Your task to perform on an android device: find photos in the google photos app Image 0: 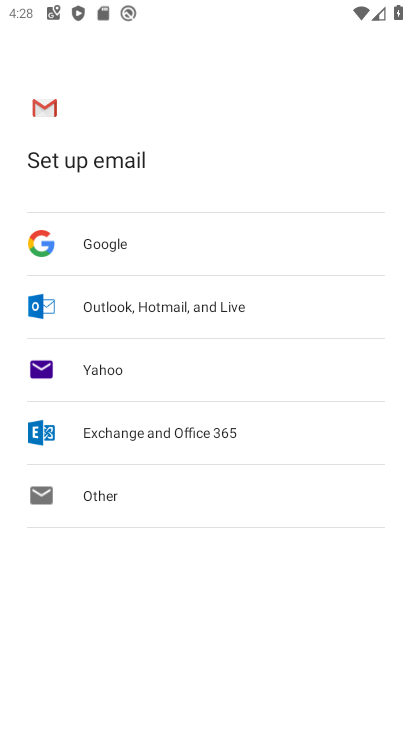
Step 0: press home button
Your task to perform on an android device: find photos in the google photos app Image 1: 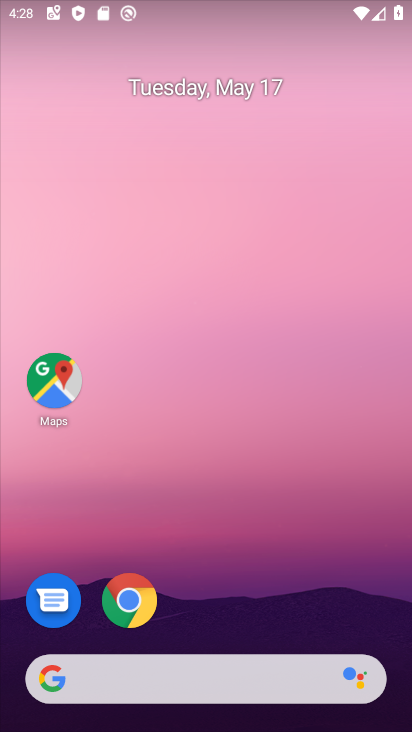
Step 1: drag from (213, 601) to (262, 16)
Your task to perform on an android device: find photos in the google photos app Image 2: 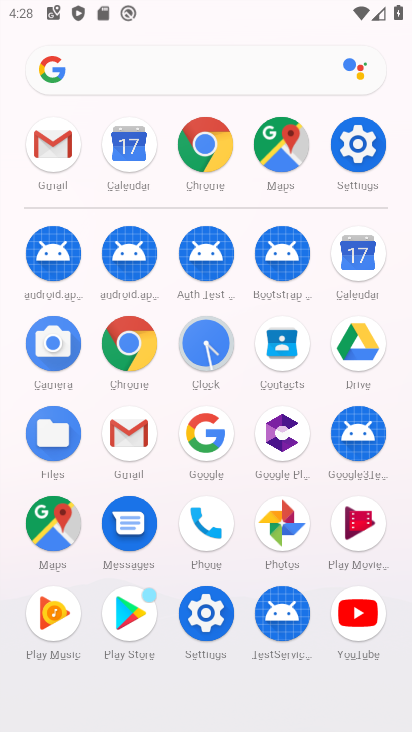
Step 2: click (281, 529)
Your task to perform on an android device: find photos in the google photos app Image 3: 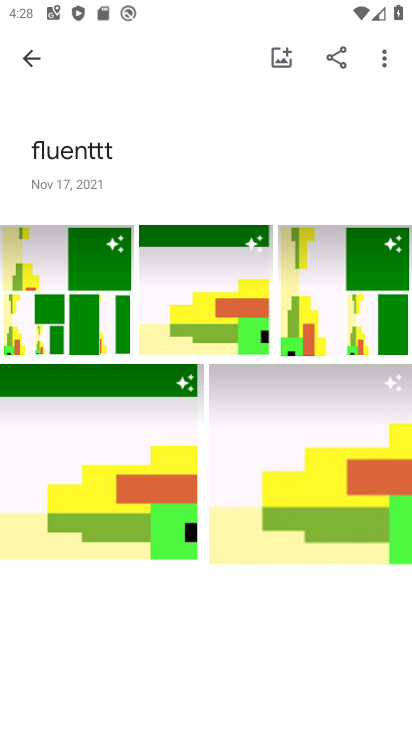
Step 3: click (33, 55)
Your task to perform on an android device: find photos in the google photos app Image 4: 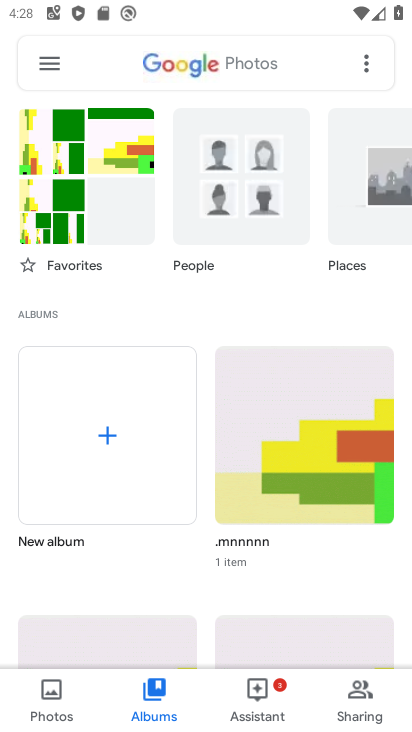
Step 4: click (50, 693)
Your task to perform on an android device: find photos in the google photos app Image 5: 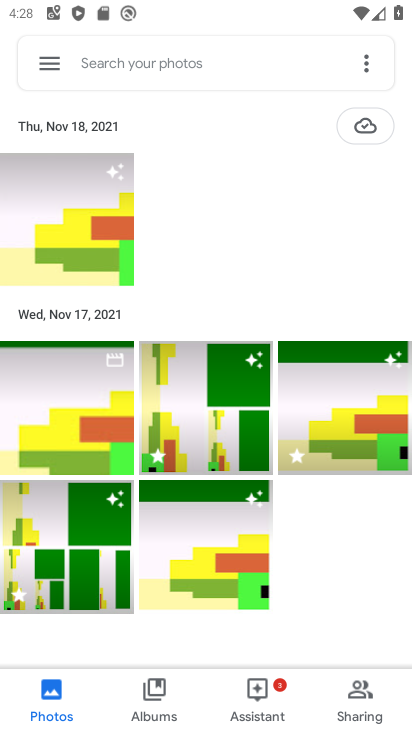
Step 5: task complete